Your task to perform on an android device: Toggle the flashlight Image 0: 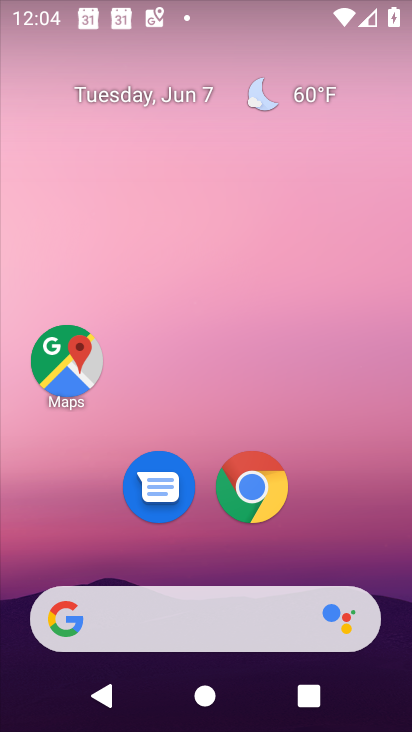
Step 0: drag from (242, 0) to (315, 673)
Your task to perform on an android device: Toggle the flashlight Image 1: 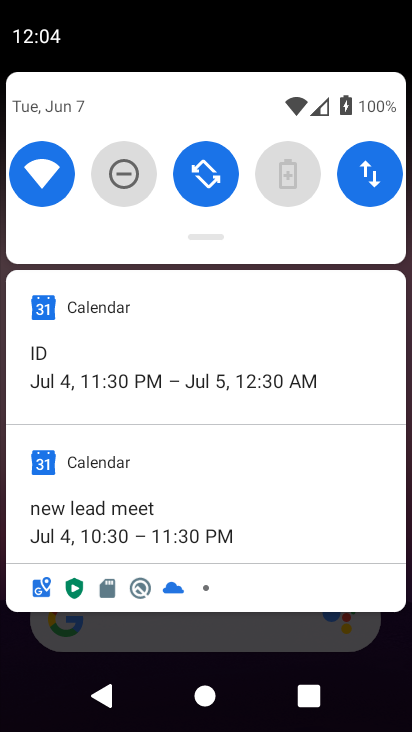
Step 1: drag from (240, 208) to (244, 450)
Your task to perform on an android device: Toggle the flashlight Image 2: 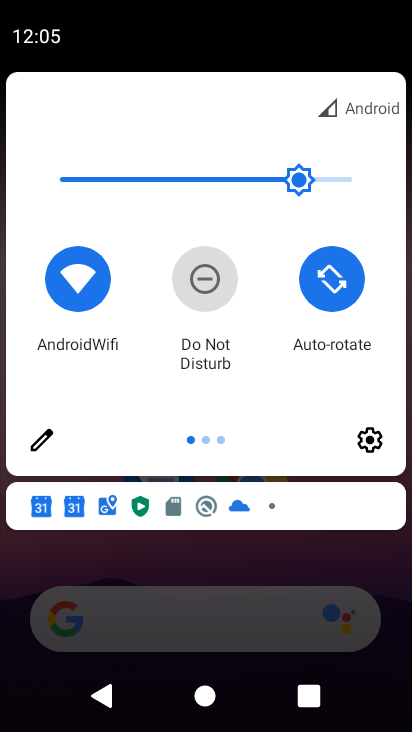
Step 2: drag from (370, 390) to (32, 380)
Your task to perform on an android device: Toggle the flashlight Image 3: 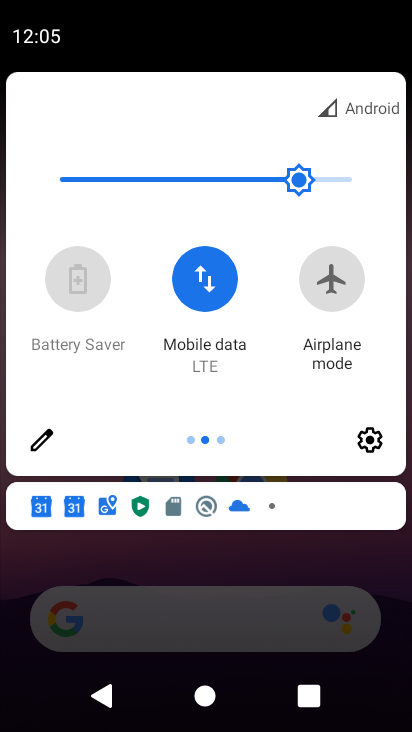
Step 3: drag from (346, 398) to (1, 392)
Your task to perform on an android device: Toggle the flashlight Image 4: 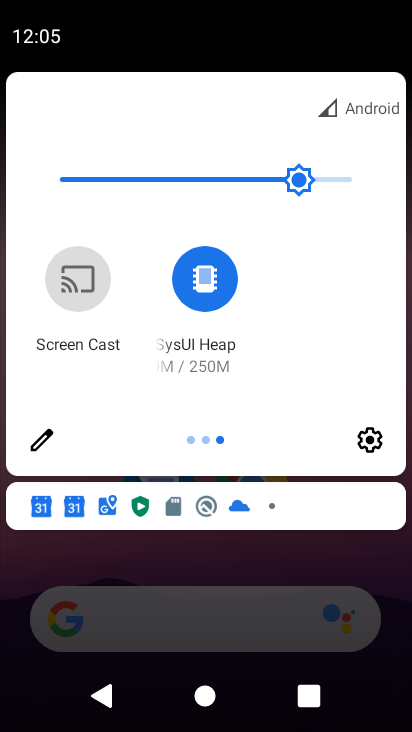
Step 4: click (48, 427)
Your task to perform on an android device: Toggle the flashlight Image 5: 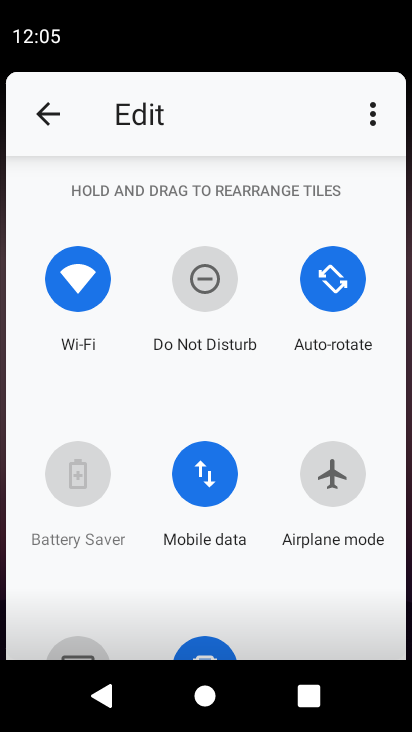
Step 5: task complete